Your task to perform on an android device: manage bookmarks in the chrome app Image 0: 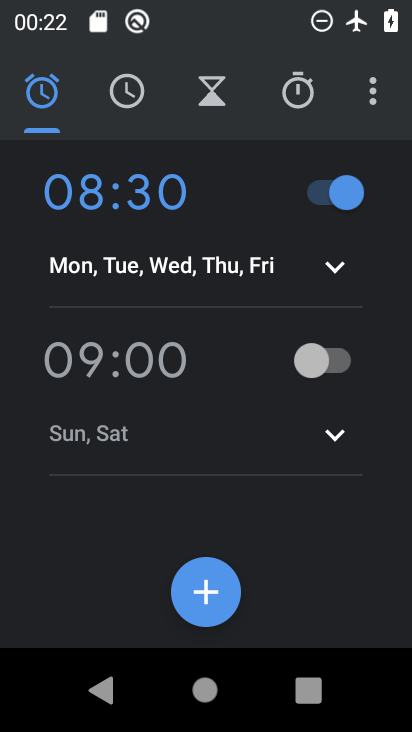
Step 0: drag from (258, 628) to (315, 250)
Your task to perform on an android device: manage bookmarks in the chrome app Image 1: 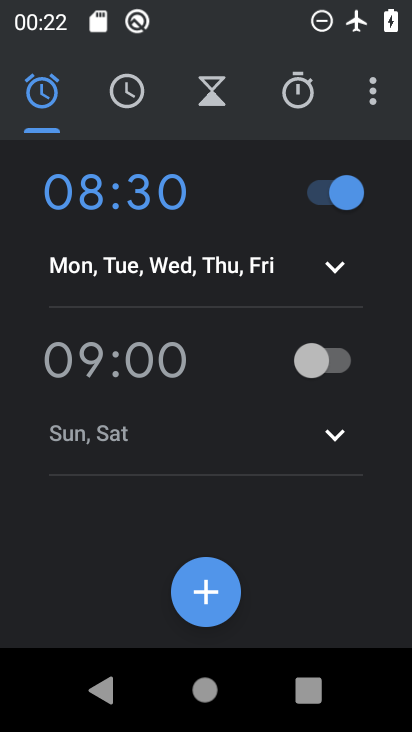
Step 1: press home button
Your task to perform on an android device: manage bookmarks in the chrome app Image 2: 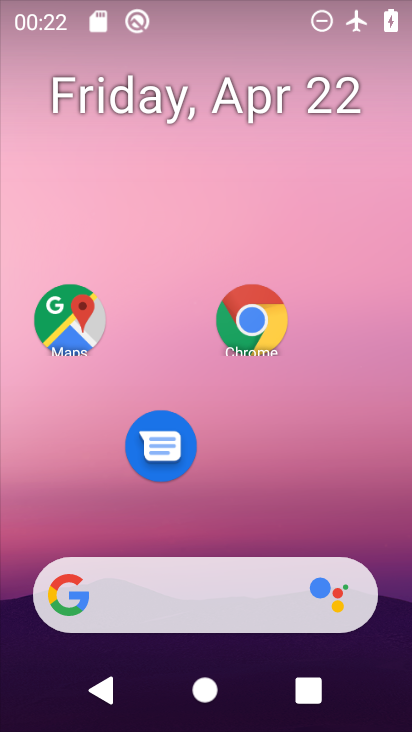
Step 2: click (246, 322)
Your task to perform on an android device: manage bookmarks in the chrome app Image 3: 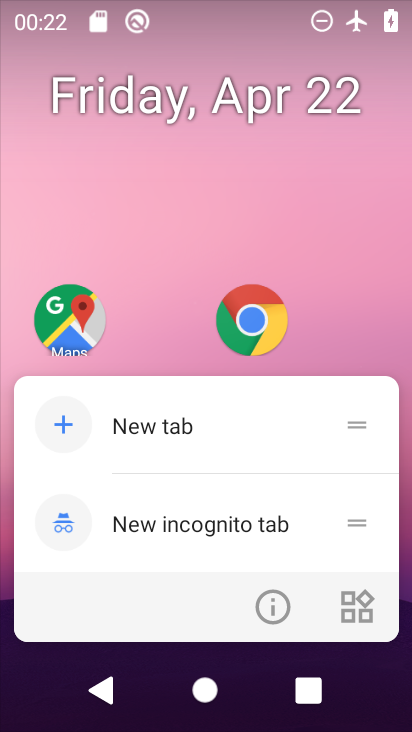
Step 3: click (279, 602)
Your task to perform on an android device: manage bookmarks in the chrome app Image 4: 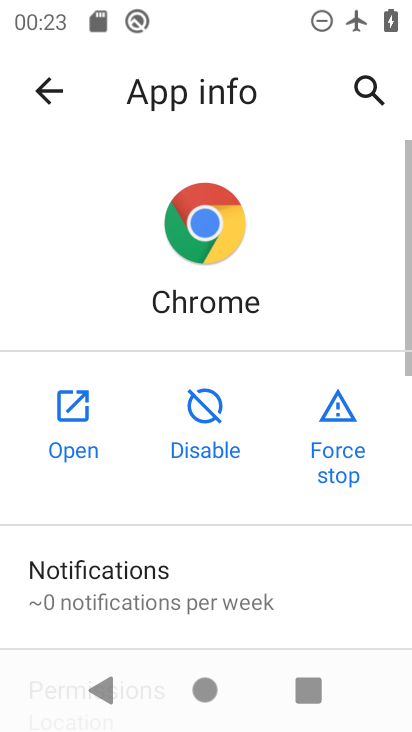
Step 4: click (42, 441)
Your task to perform on an android device: manage bookmarks in the chrome app Image 5: 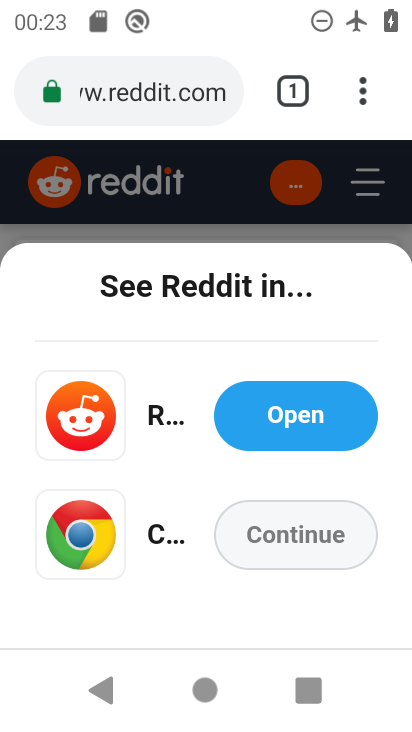
Step 5: drag from (369, 109) to (208, 454)
Your task to perform on an android device: manage bookmarks in the chrome app Image 6: 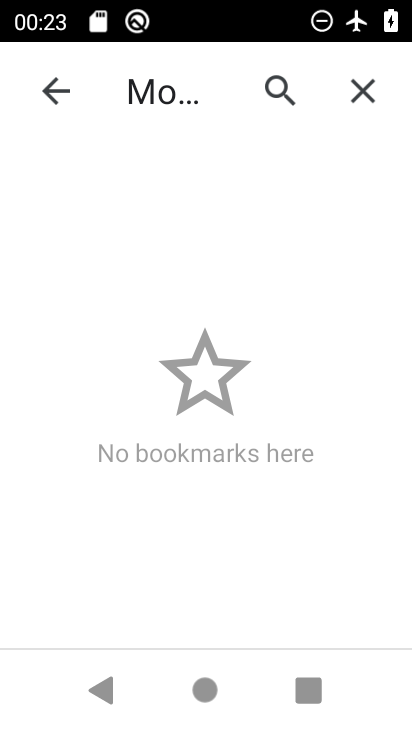
Step 6: click (374, 94)
Your task to perform on an android device: manage bookmarks in the chrome app Image 7: 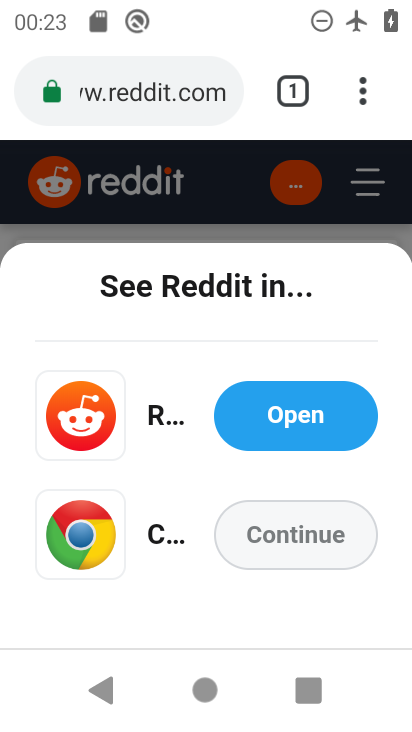
Step 7: task complete